Your task to perform on an android device: Open location settings Image 0: 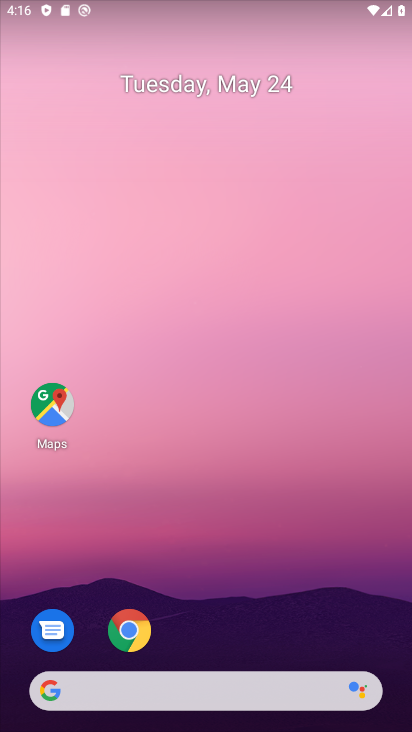
Step 0: click (134, 624)
Your task to perform on an android device: Open location settings Image 1: 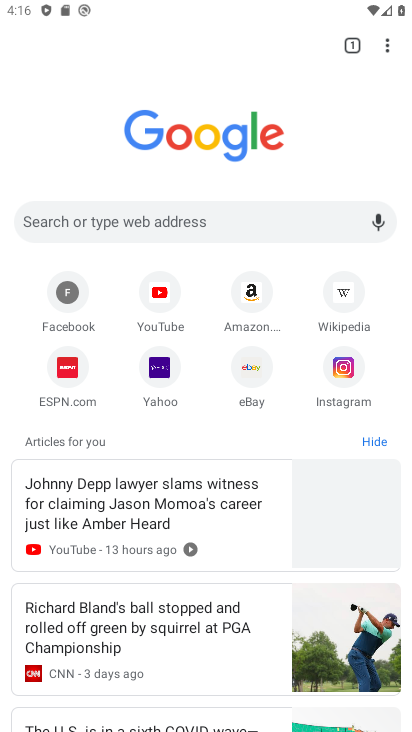
Step 1: click (407, 42)
Your task to perform on an android device: Open location settings Image 2: 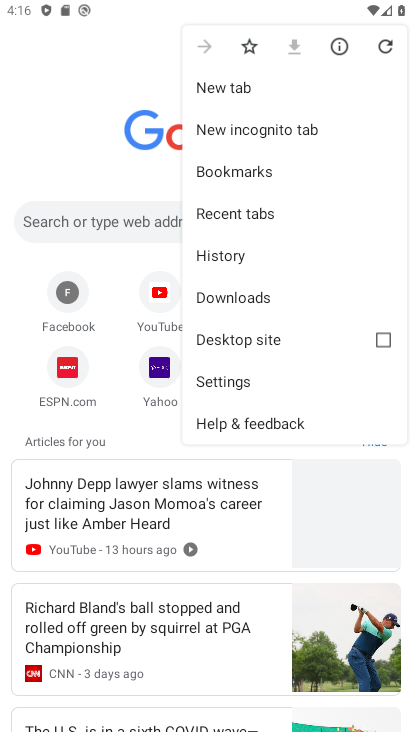
Step 2: press home button
Your task to perform on an android device: Open location settings Image 3: 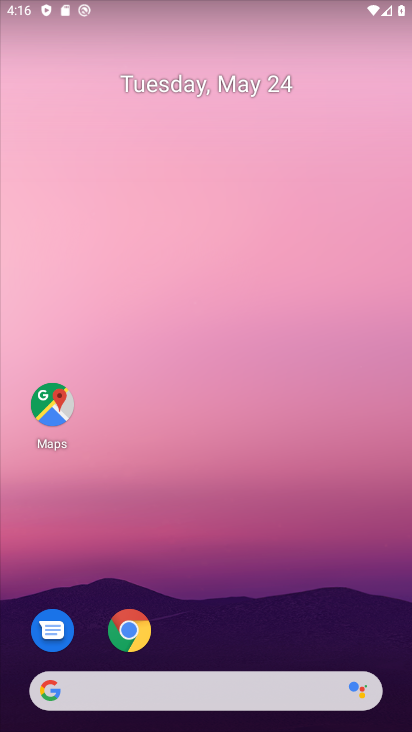
Step 3: drag from (208, 623) to (218, 290)
Your task to perform on an android device: Open location settings Image 4: 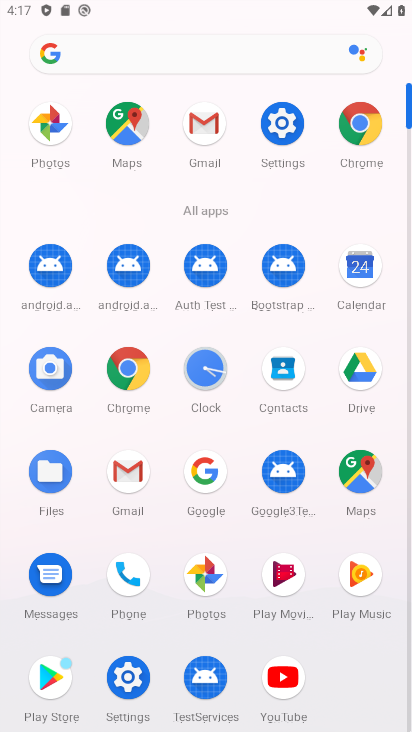
Step 4: click (124, 691)
Your task to perform on an android device: Open location settings Image 5: 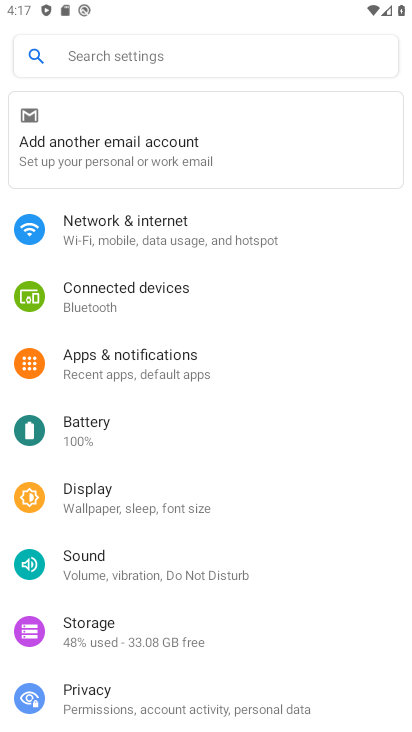
Step 5: click (124, 691)
Your task to perform on an android device: Open location settings Image 6: 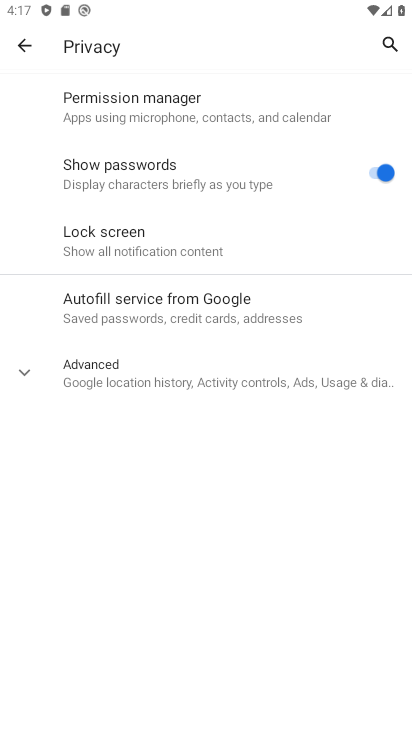
Step 6: click (30, 46)
Your task to perform on an android device: Open location settings Image 7: 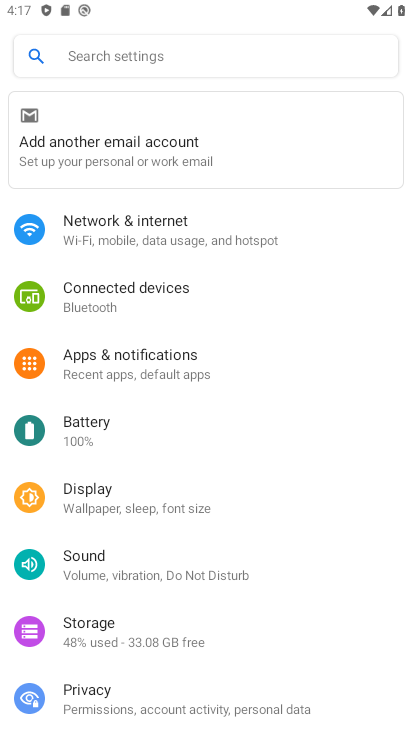
Step 7: drag from (102, 627) to (121, 204)
Your task to perform on an android device: Open location settings Image 8: 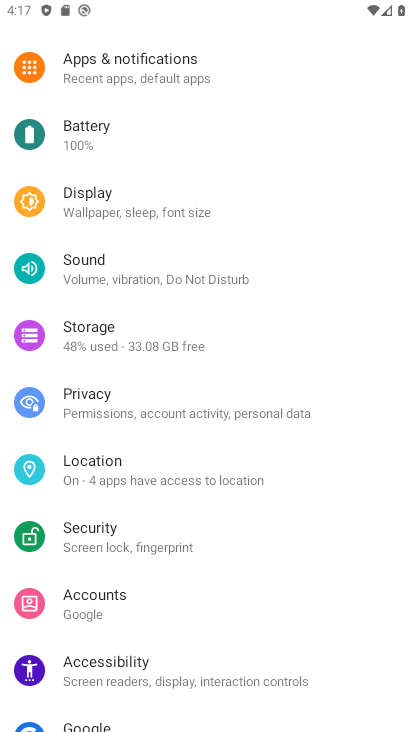
Step 8: click (95, 461)
Your task to perform on an android device: Open location settings Image 9: 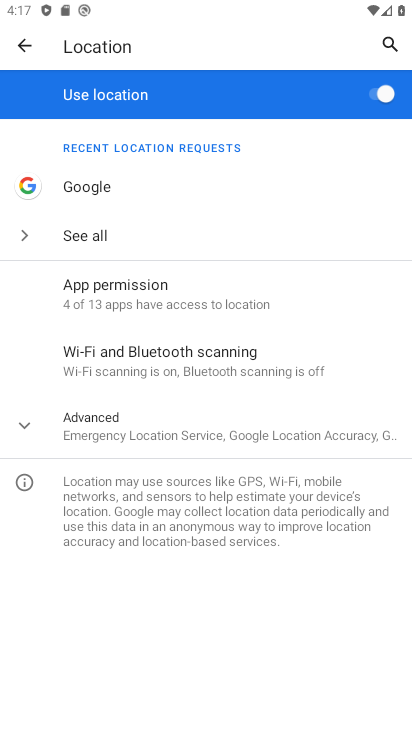
Step 9: task complete